Your task to perform on an android device: Search for sushi restaurants on Maps Image 0: 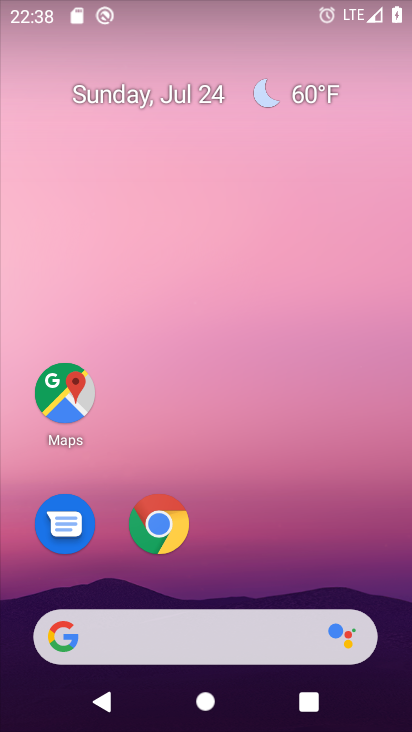
Step 0: click (60, 384)
Your task to perform on an android device: Search for sushi restaurants on Maps Image 1: 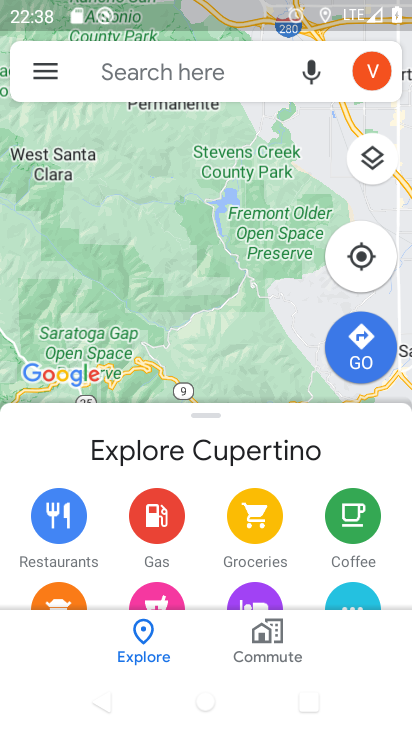
Step 1: click (165, 72)
Your task to perform on an android device: Search for sushi restaurants on Maps Image 2: 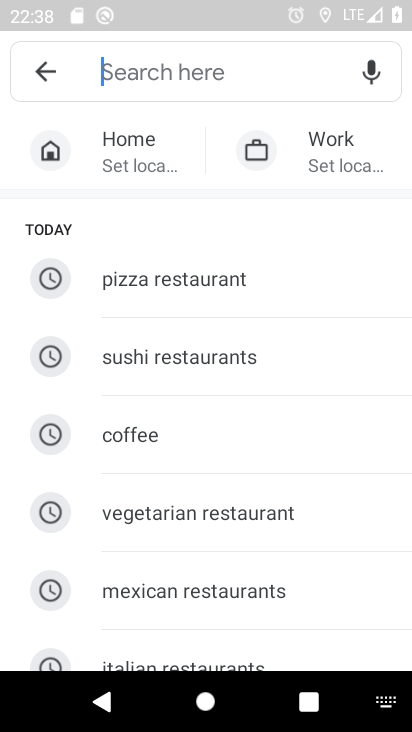
Step 2: click (172, 357)
Your task to perform on an android device: Search for sushi restaurants on Maps Image 3: 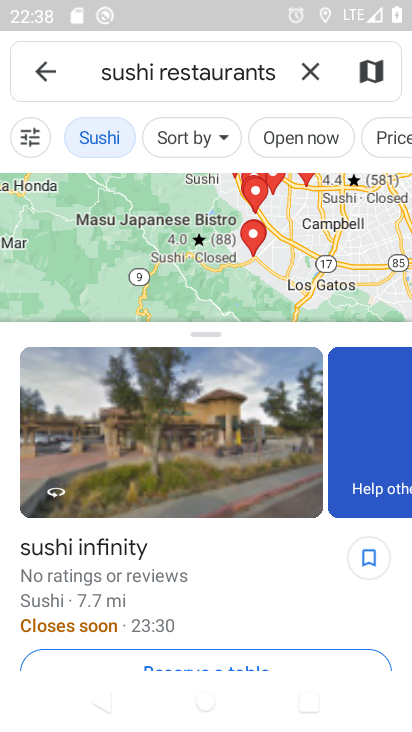
Step 3: task complete